Your task to perform on an android device: Is it going to rain today? Image 0: 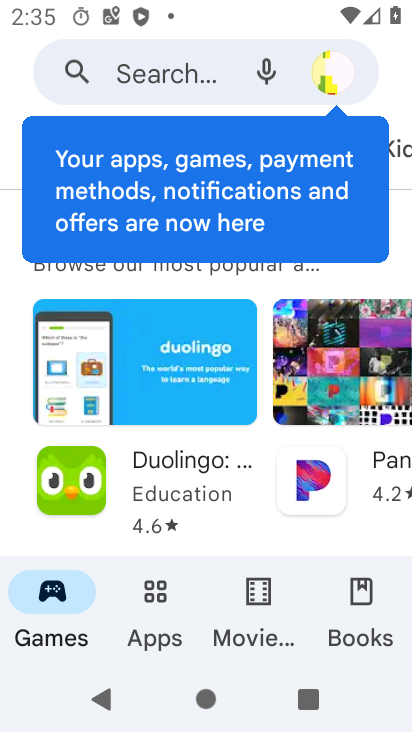
Step 0: press home button
Your task to perform on an android device: Is it going to rain today? Image 1: 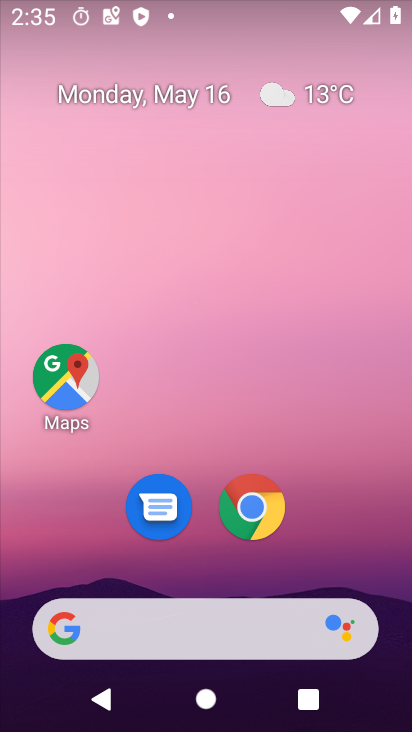
Step 1: click (250, 624)
Your task to perform on an android device: Is it going to rain today? Image 2: 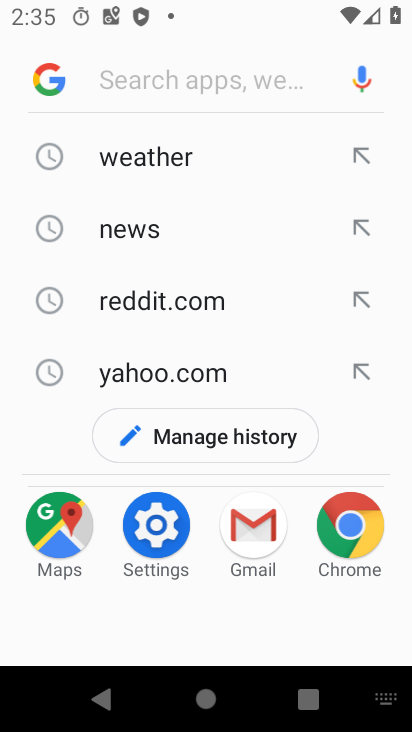
Step 2: click (177, 155)
Your task to perform on an android device: Is it going to rain today? Image 3: 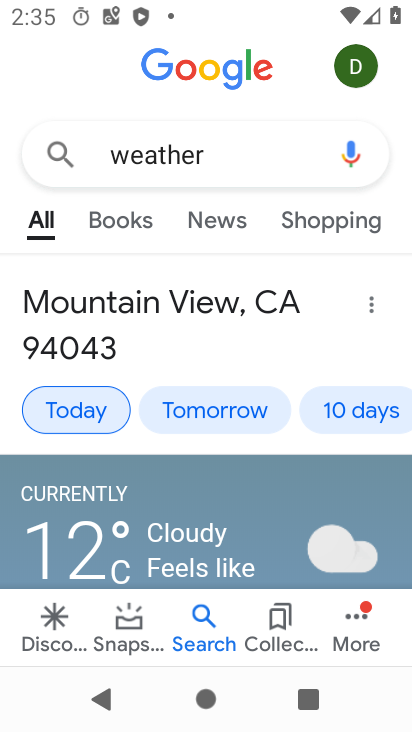
Step 3: task complete